Your task to perform on an android device: turn on the 12-hour format for clock Image 0: 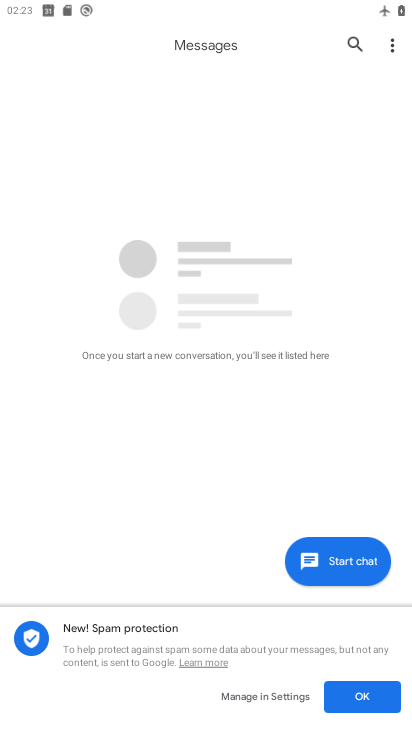
Step 0: press home button
Your task to perform on an android device: turn on the 12-hour format for clock Image 1: 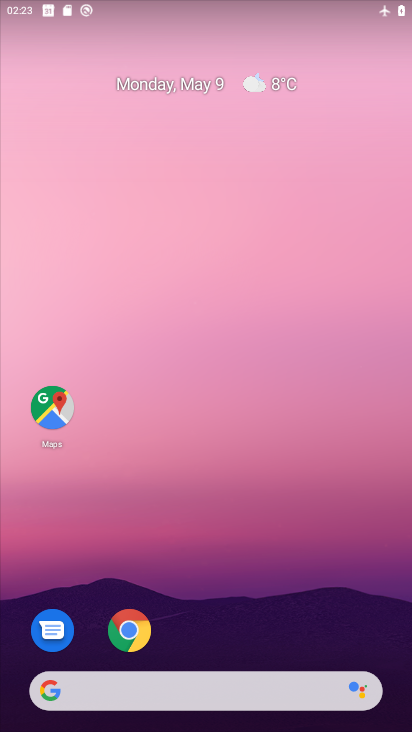
Step 1: drag from (250, 580) to (375, 4)
Your task to perform on an android device: turn on the 12-hour format for clock Image 2: 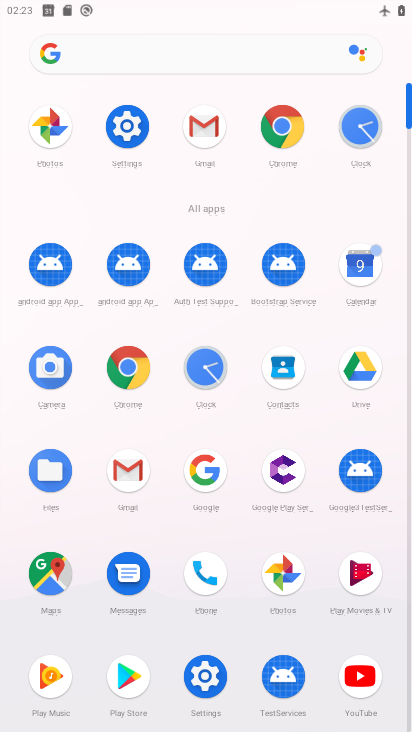
Step 2: click (192, 678)
Your task to perform on an android device: turn on the 12-hour format for clock Image 3: 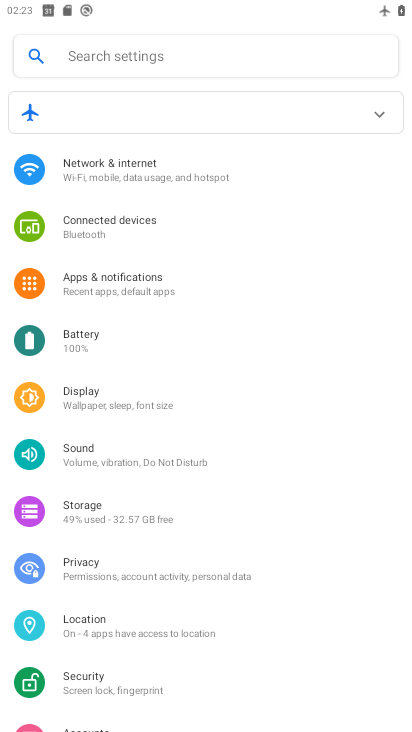
Step 3: drag from (135, 610) to (282, 73)
Your task to perform on an android device: turn on the 12-hour format for clock Image 4: 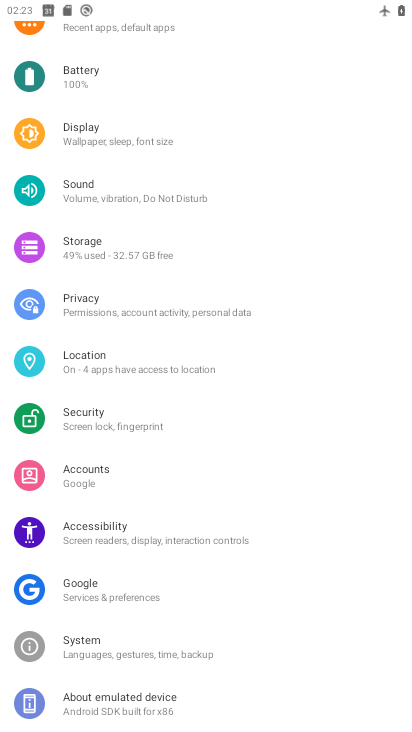
Step 4: click (170, 652)
Your task to perform on an android device: turn on the 12-hour format for clock Image 5: 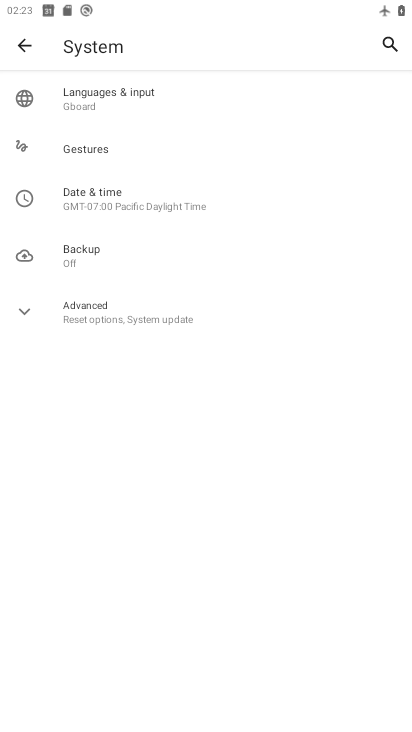
Step 5: click (116, 203)
Your task to perform on an android device: turn on the 12-hour format for clock Image 6: 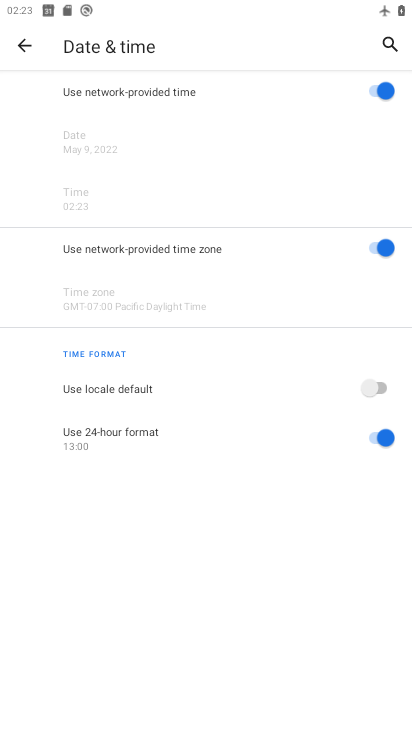
Step 6: click (386, 387)
Your task to perform on an android device: turn on the 12-hour format for clock Image 7: 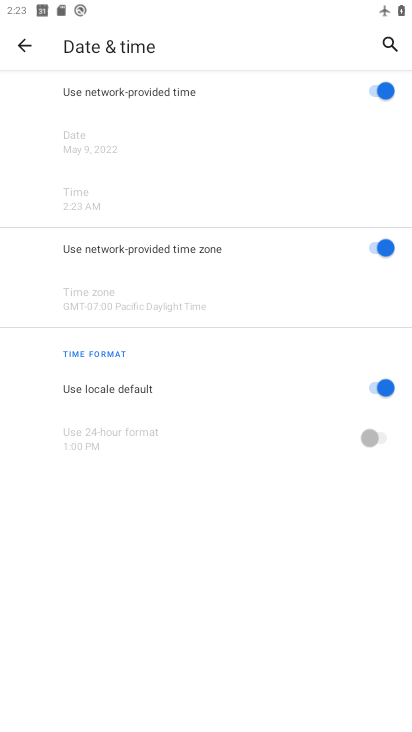
Step 7: task complete